Your task to perform on an android device: Open wifi settings Image 0: 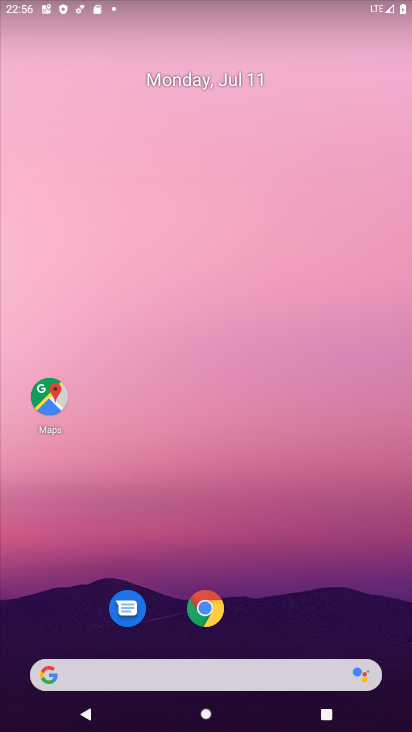
Step 0: drag from (35, 709) to (144, 205)
Your task to perform on an android device: Open wifi settings Image 1: 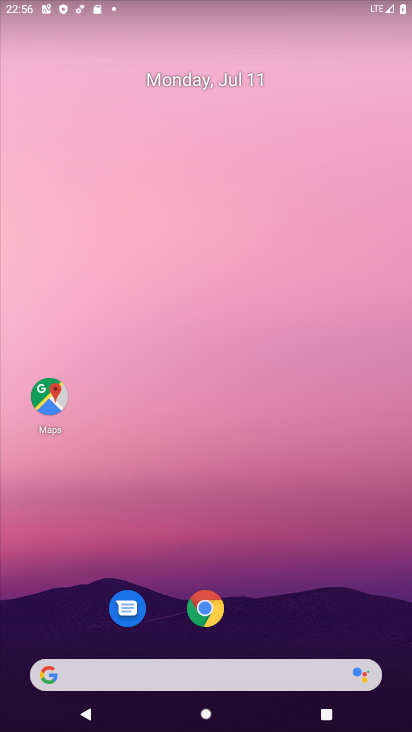
Step 1: drag from (33, 675) to (162, 75)
Your task to perform on an android device: Open wifi settings Image 2: 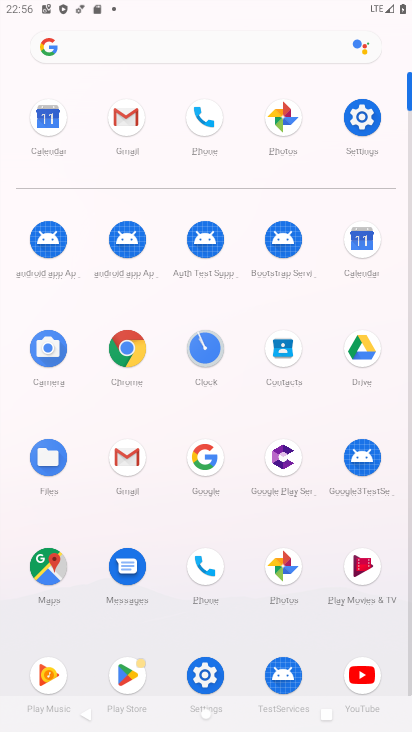
Step 2: click (196, 694)
Your task to perform on an android device: Open wifi settings Image 3: 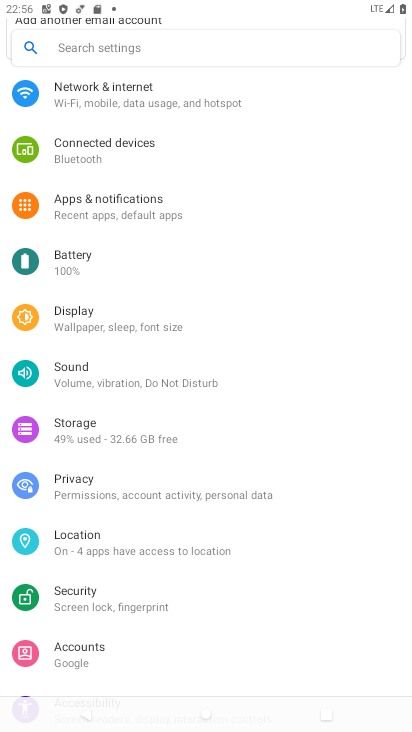
Step 3: click (121, 95)
Your task to perform on an android device: Open wifi settings Image 4: 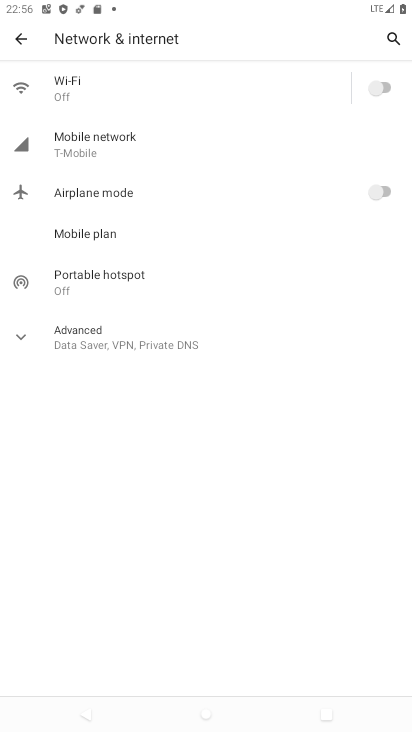
Step 4: task complete